Your task to perform on an android device: turn off airplane mode Image 0: 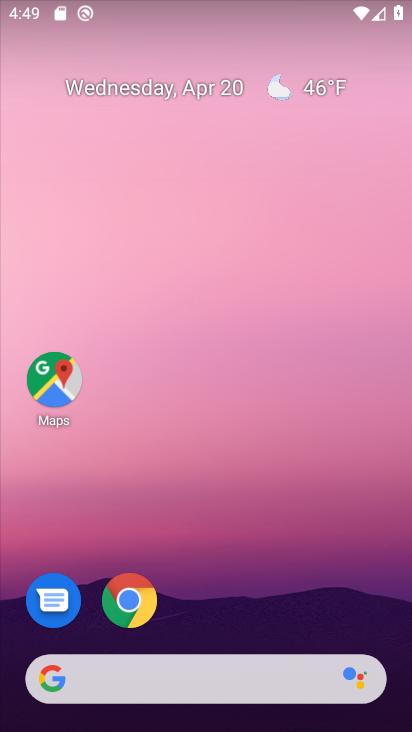
Step 0: drag from (203, 218) to (180, 580)
Your task to perform on an android device: turn off airplane mode Image 1: 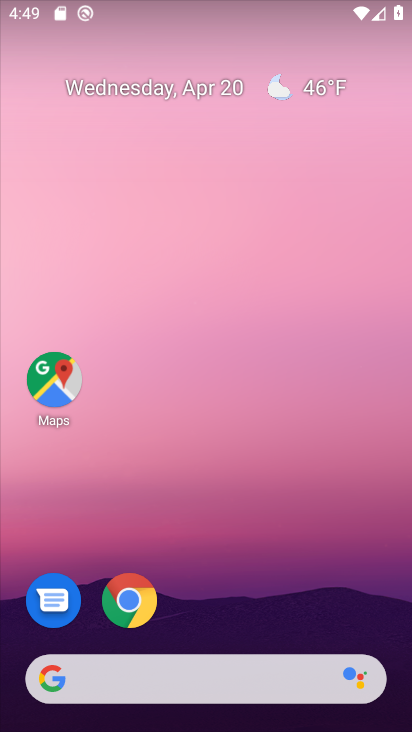
Step 1: task complete